Your task to perform on an android device: open app "Google Play Games" Image 0: 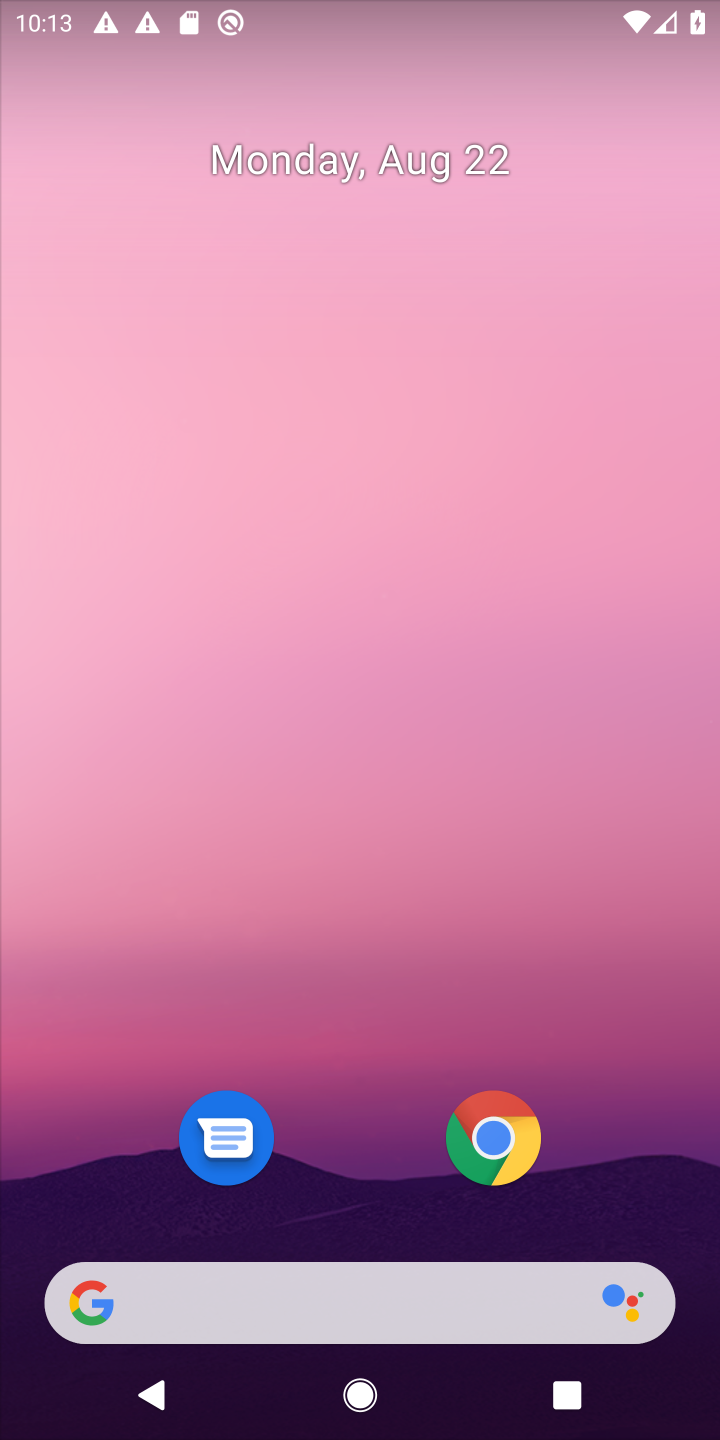
Step 0: press home button
Your task to perform on an android device: open app "Google Play Games" Image 1: 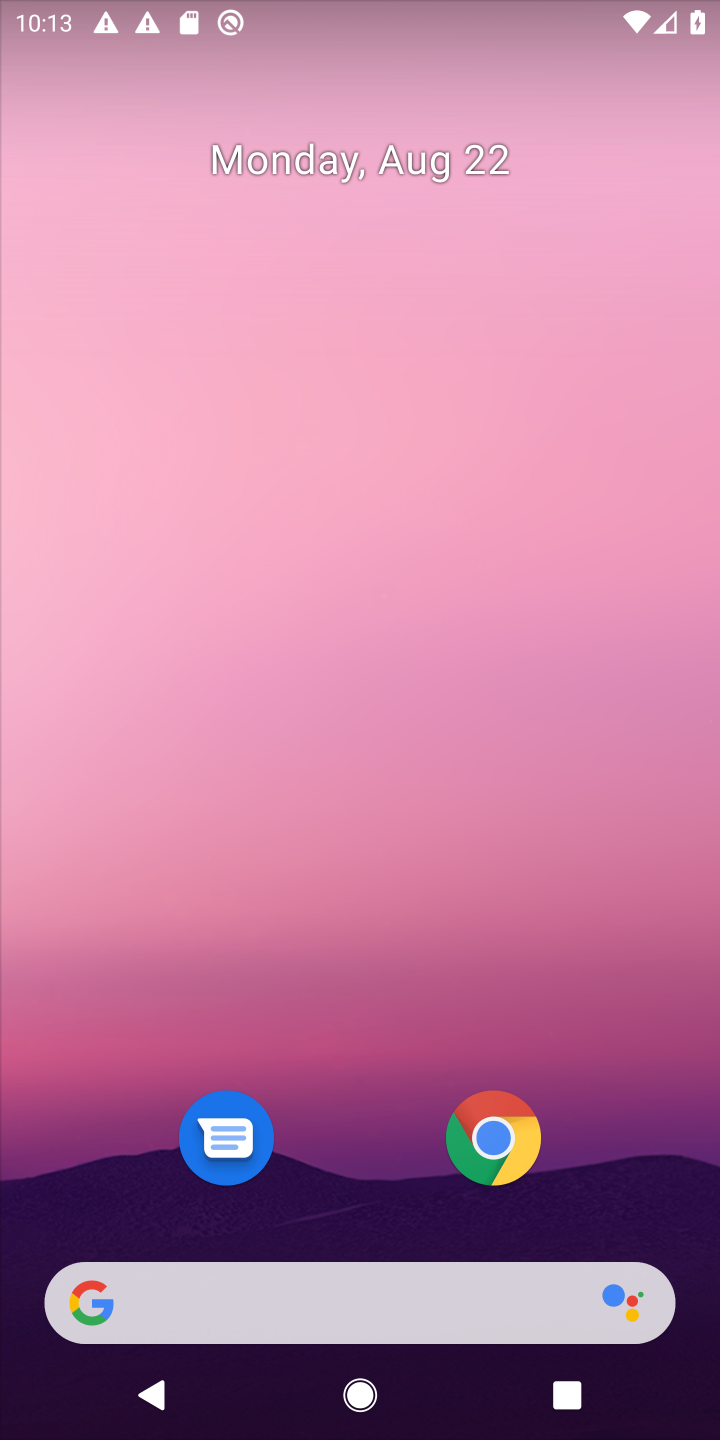
Step 1: press home button
Your task to perform on an android device: open app "Google Play Games" Image 2: 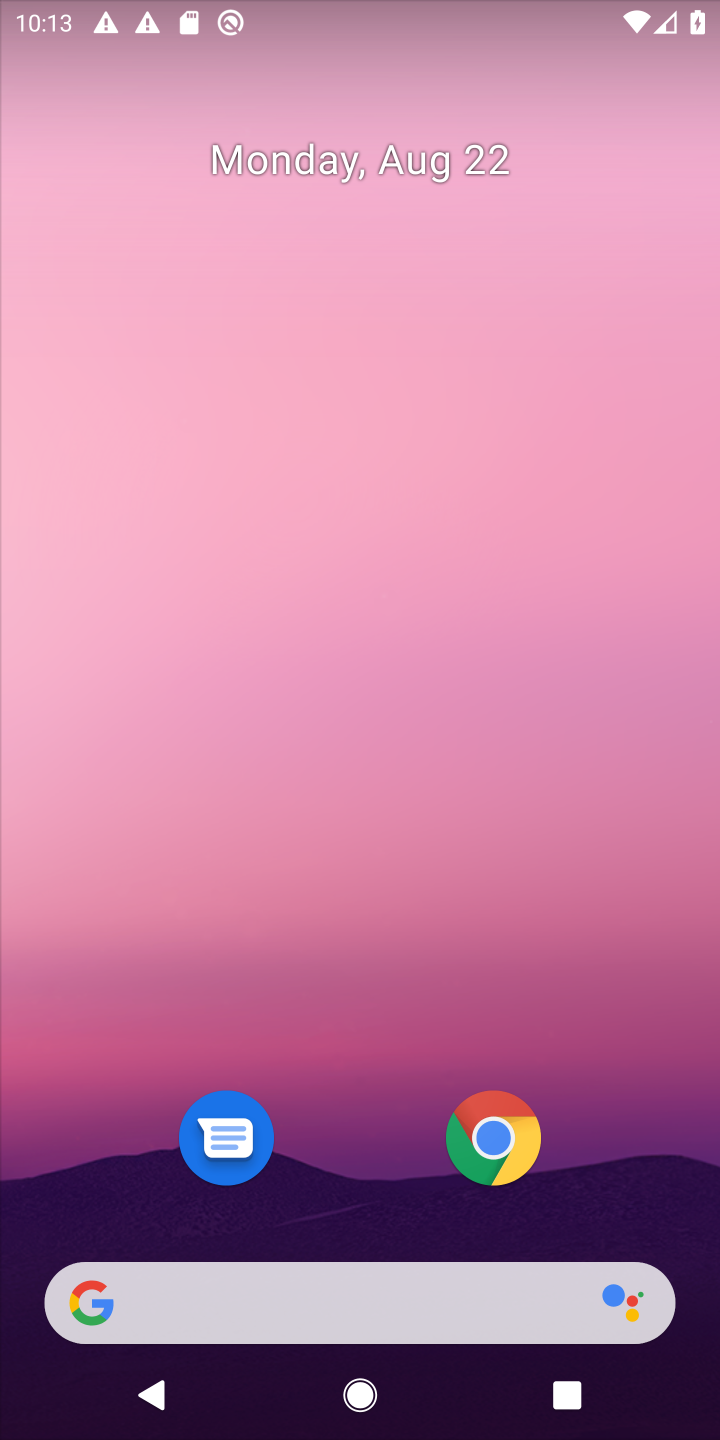
Step 2: drag from (648, 1038) to (624, 163)
Your task to perform on an android device: open app "Google Play Games" Image 3: 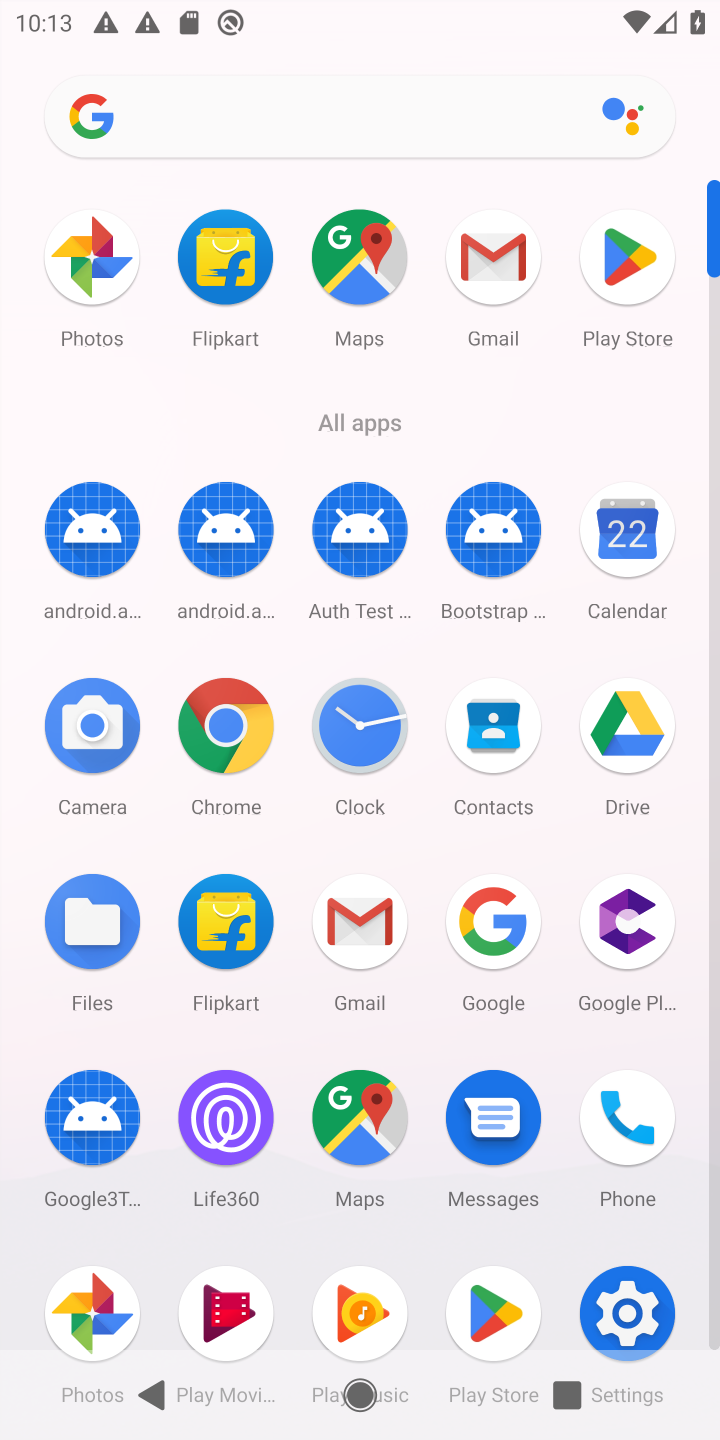
Step 3: click (608, 273)
Your task to perform on an android device: open app "Google Play Games" Image 4: 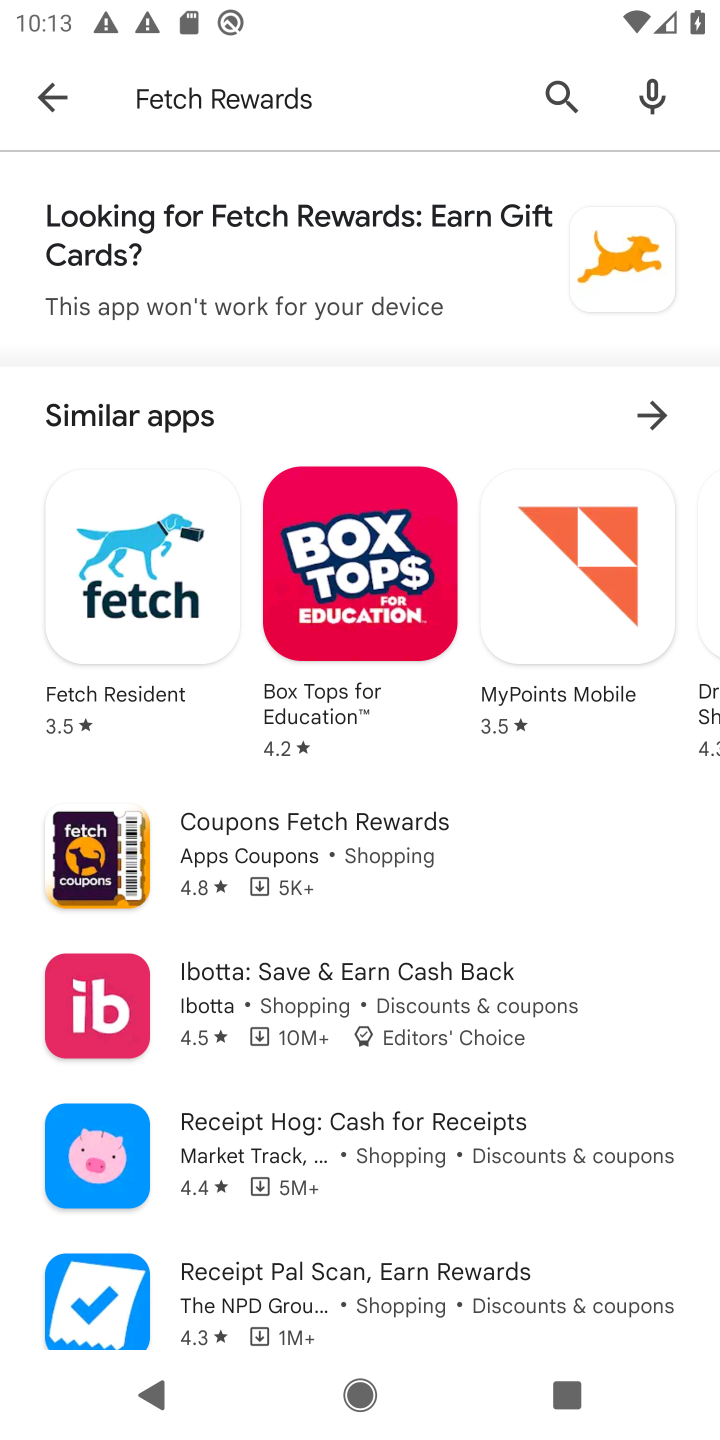
Step 4: press back button
Your task to perform on an android device: open app "Google Play Games" Image 5: 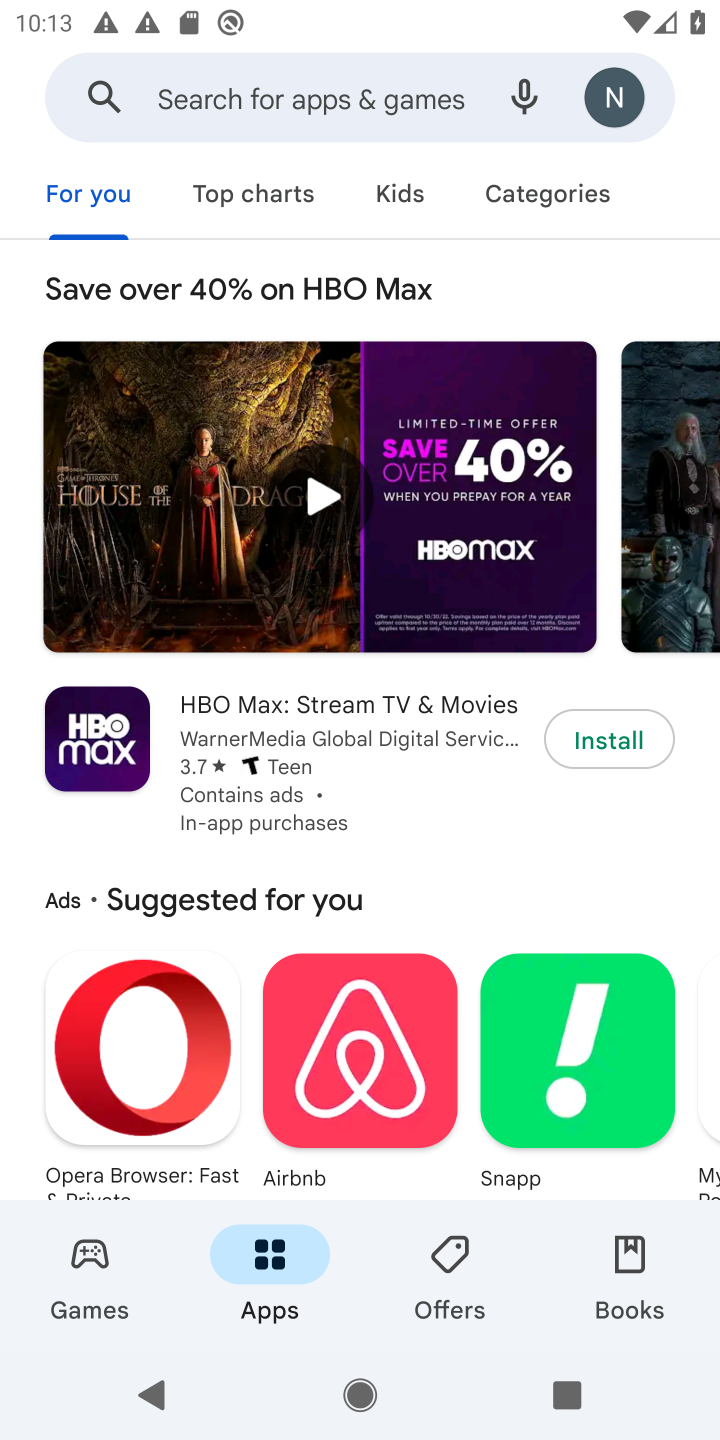
Step 5: click (247, 97)
Your task to perform on an android device: open app "Google Play Games" Image 6: 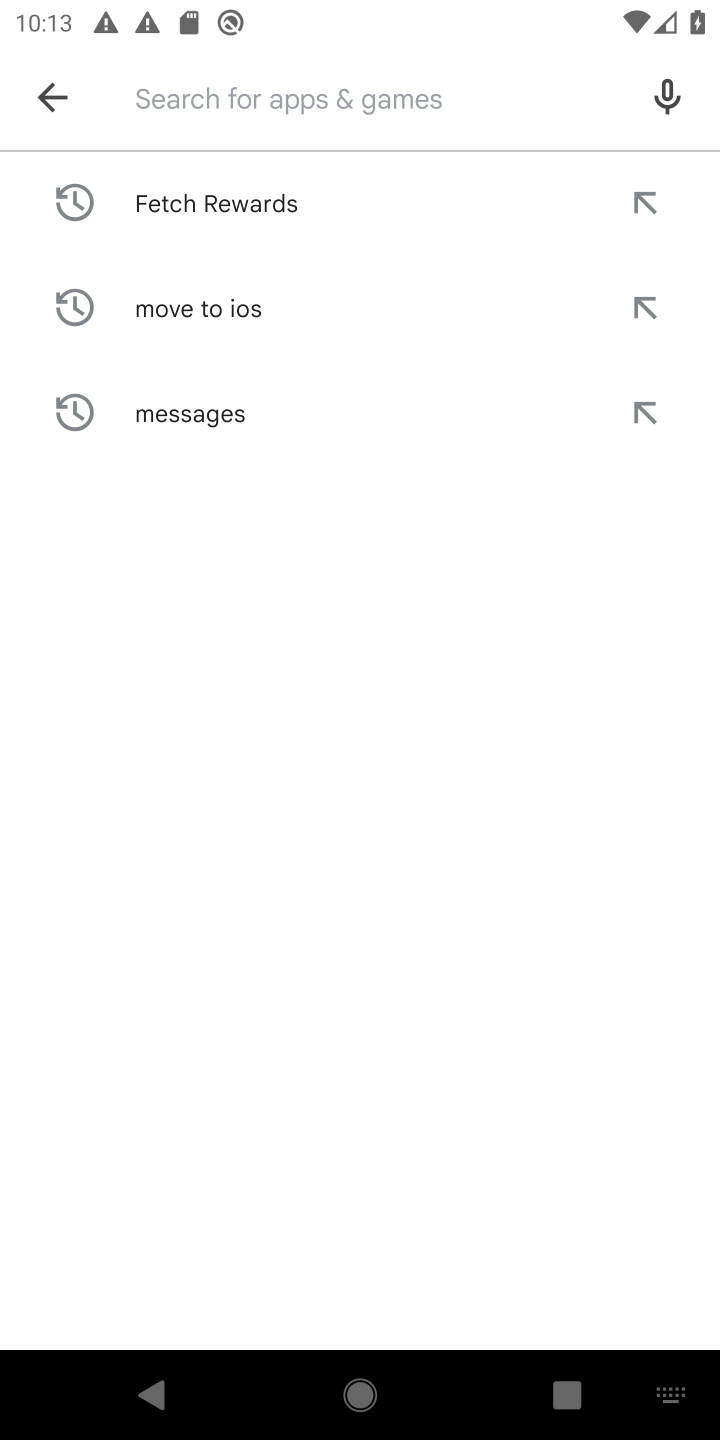
Step 6: press enter
Your task to perform on an android device: open app "Google Play Games" Image 7: 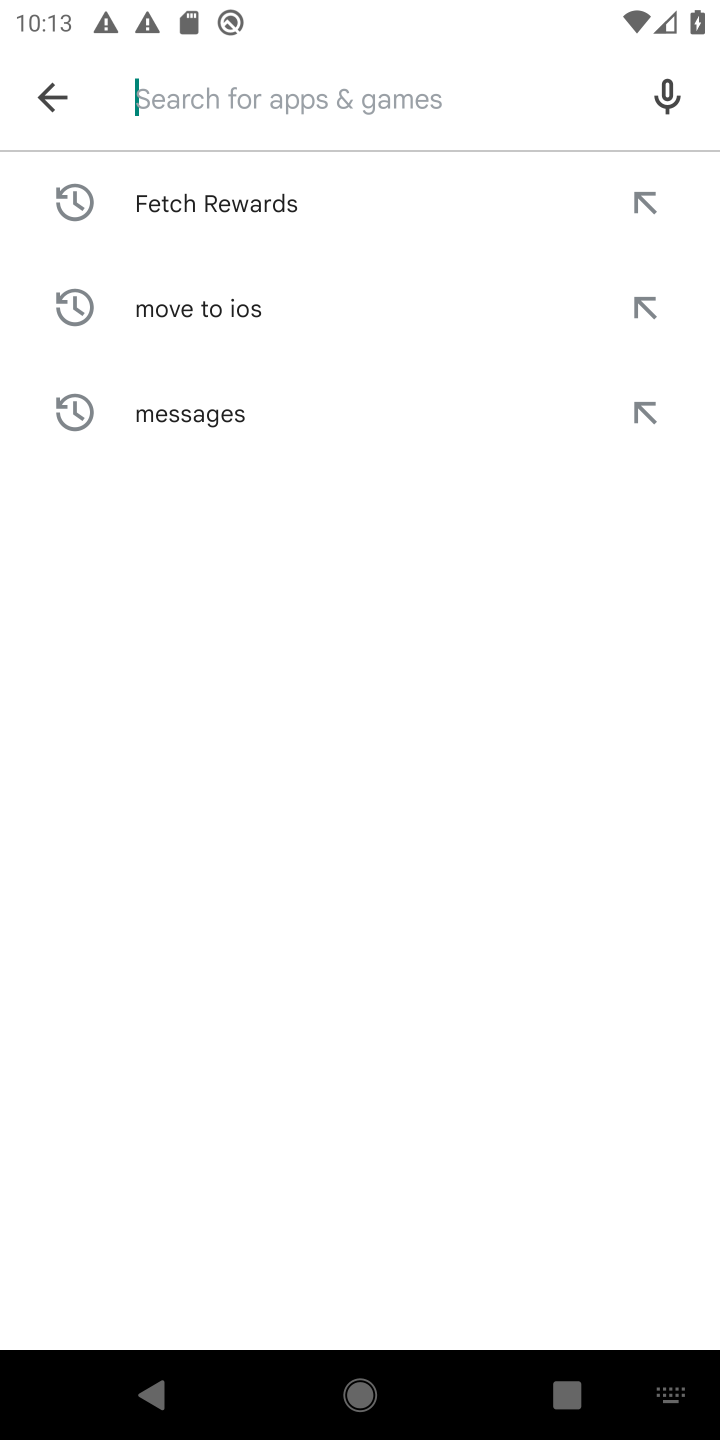
Step 7: type "Google Play Games"
Your task to perform on an android device: open app "Google Play Games" Image 8: 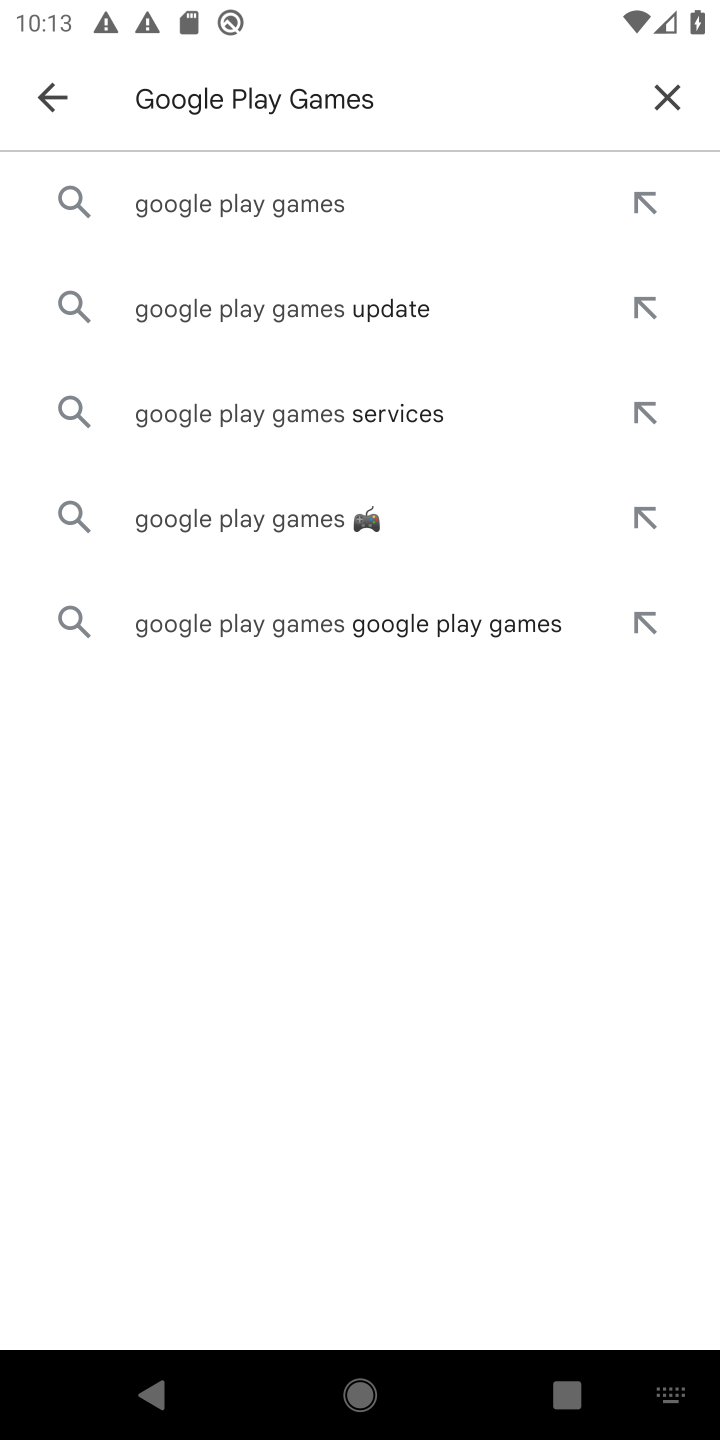
Step 8: click (267, 219)
Your task to perform on an android device: open app "Google Play Games" Image 9: 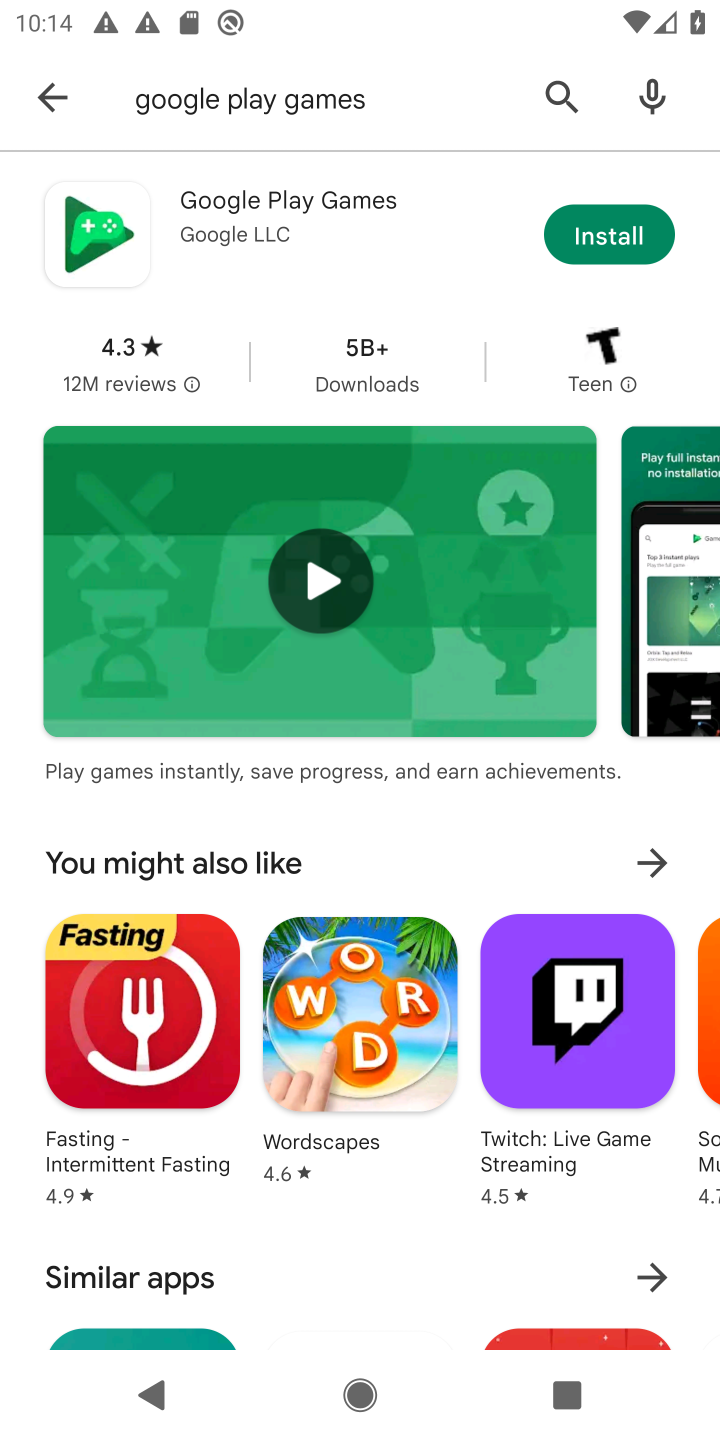
Step 9: task complete